Your task to perform on an android device: Go to settings Image 0: 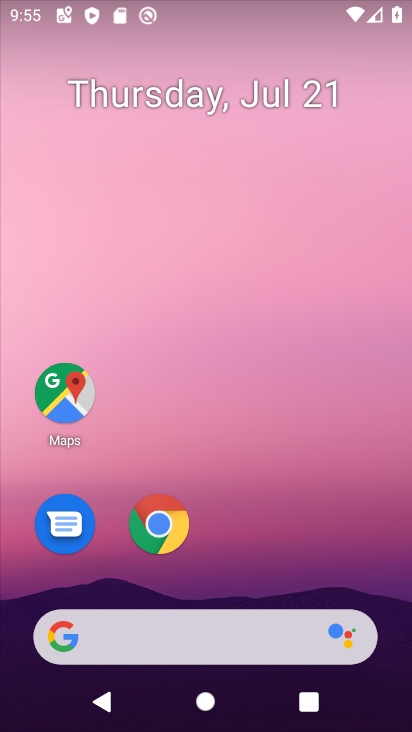
Step 0: press home button
Your task to perform on an android device: Go to settings Image 1: 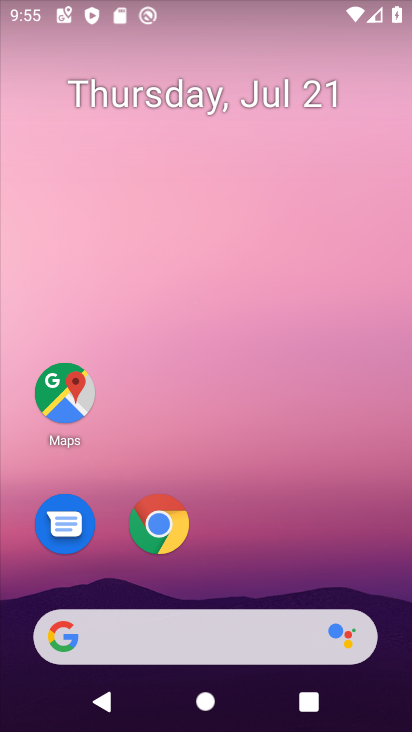
Step 1: drag from (125, 639) to (323, 141)
Your task to perform on an android device: Go to settings Image 2: 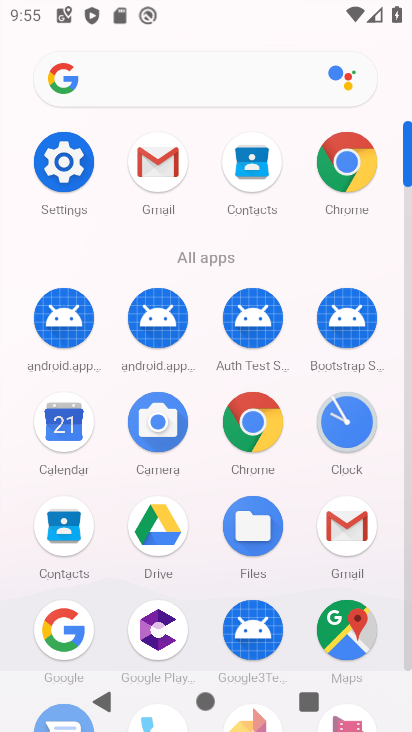
Step 2: click (64, 168)
Your task to perform on an android device: Go to settings Image 3: 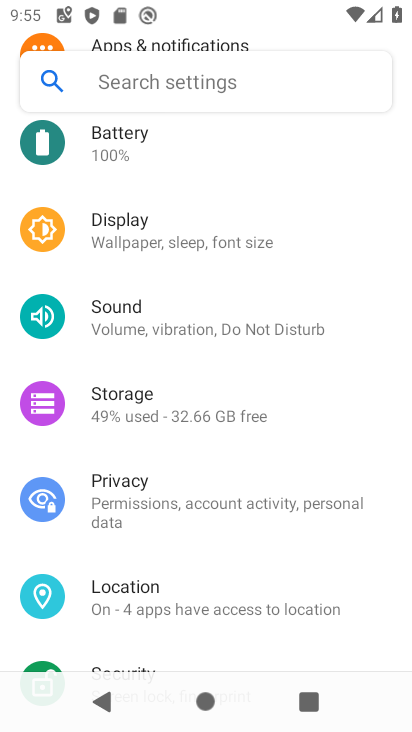
Step 3: task complete